Your task to perform on an android device: Open the Play Movies app and select the watchlist tab. Image 0: 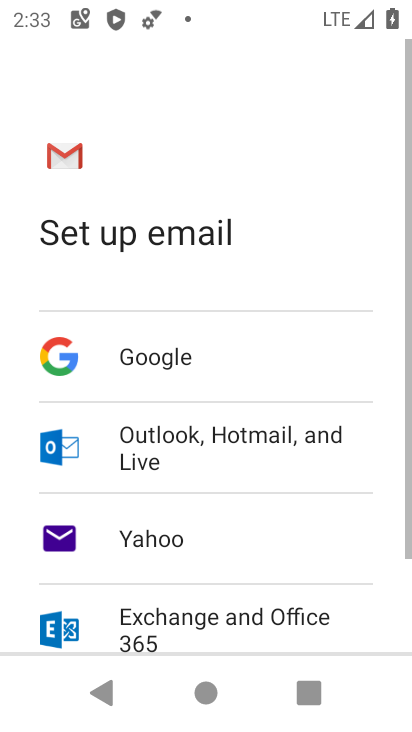
Step 0: press home button
Your task to perform on an android device: Open the Play Movies app and select the watchlist tab. Image 1: 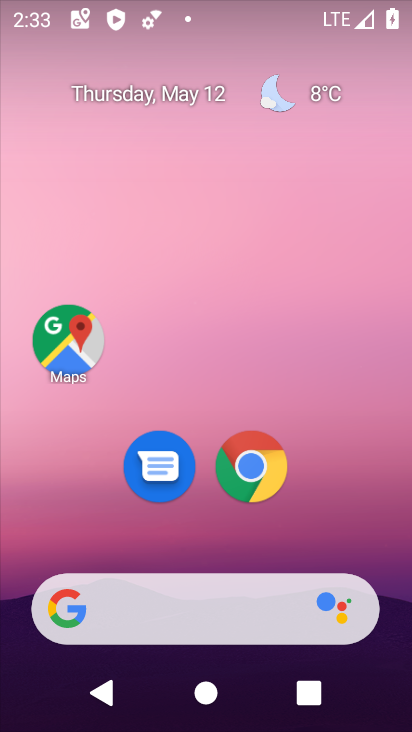
Step 1: drag from (320, 529) to (220, 141)
Your task to perform on an android device: Open the Play Movies app and select the watchlist tab. Image 2: 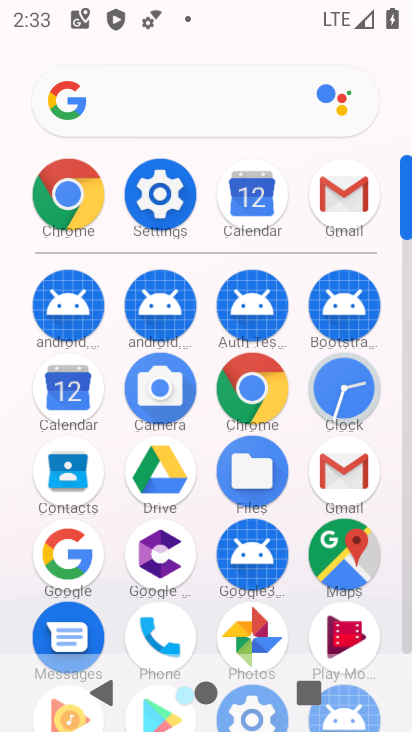
Step 2: click (335, 637)
Your task to perform on an android device: Open the Play Movies app and select the watchlist tab. Image 3: 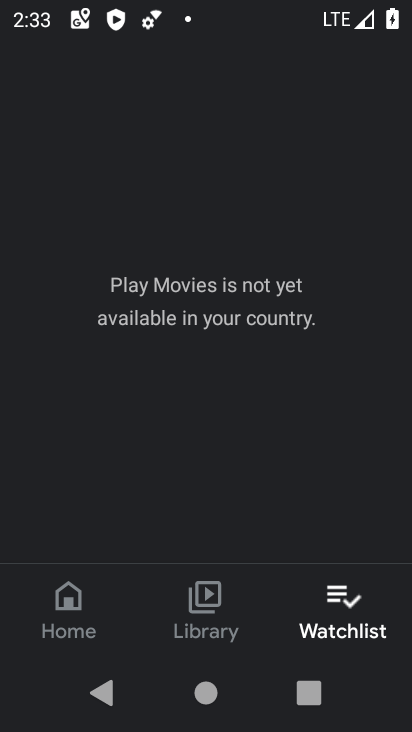
Step 3: task complete